Your task to perform on an android device: When is my next meeting? Image 0: 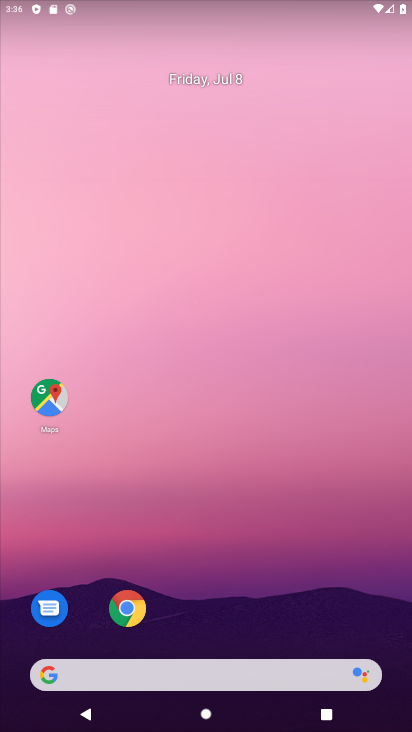
Step 0: drag from (260, 550) to (272, 109)
Your task to perform on an android device: When is my next meeting? Image 1: 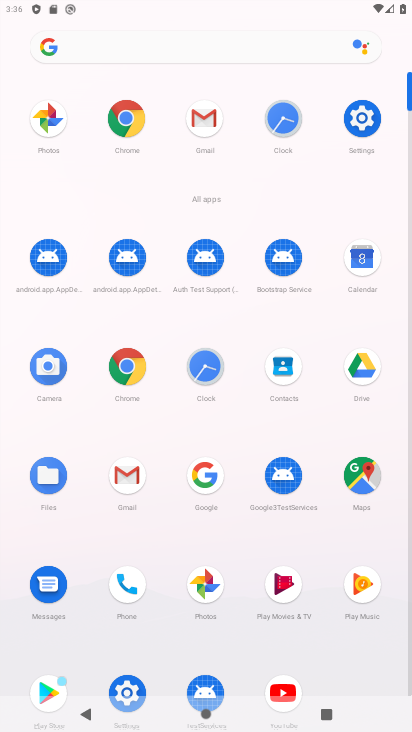
Step 1: click (369, 258)
Your task to perform on an android device: When is my next meeting? Image 2: 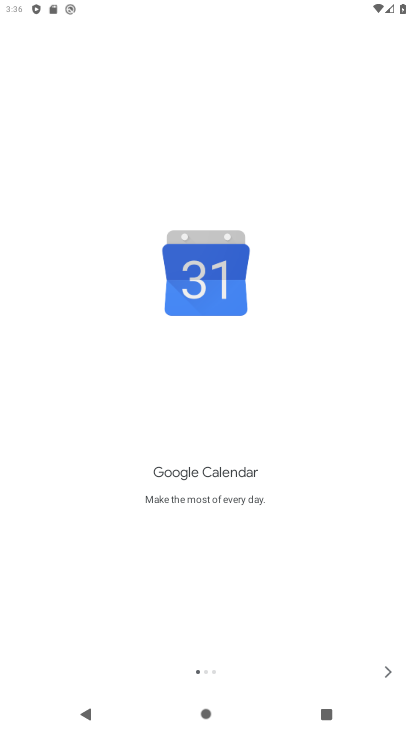
Step 2: click (382, 669)
Your task to perform on an android device: When is my next meeting? Image 3: 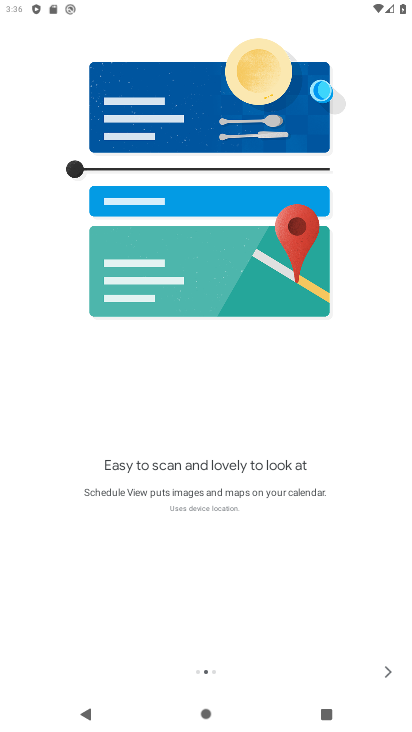
Step 3: click (382, 669)
Your task to perform on an android device: When is my next meeting? Image 4: 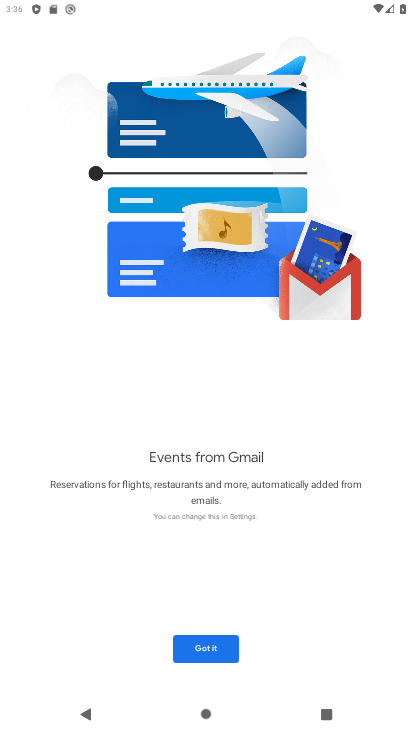
Step 4: click (192, 663)
Your task to perform on an android device: When is my next meeting? Image 5: 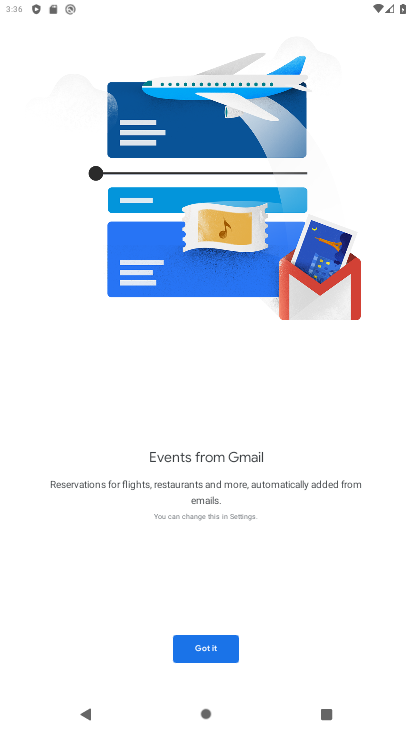
Step 5: click (194, 648)
Your task to perform on an android device: When is my next meeting? Image 6: 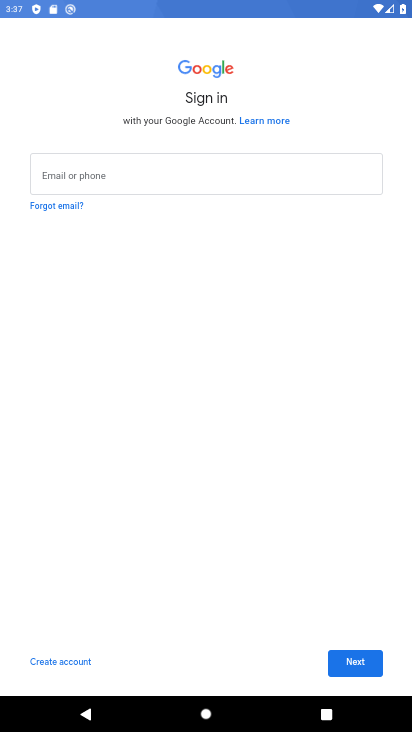
Step 6: task complete